Your task to perform on an android device: snooze an email in the gmail app Image 0: 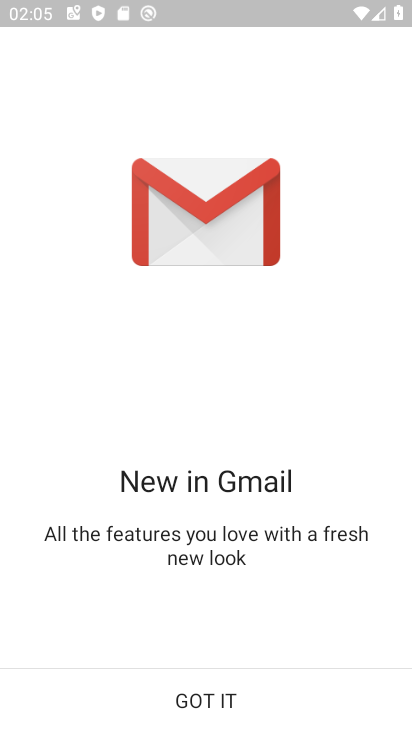
Step 0: press home button
Your task to perform on an android device: snooze an email in the gmail app Image 1: 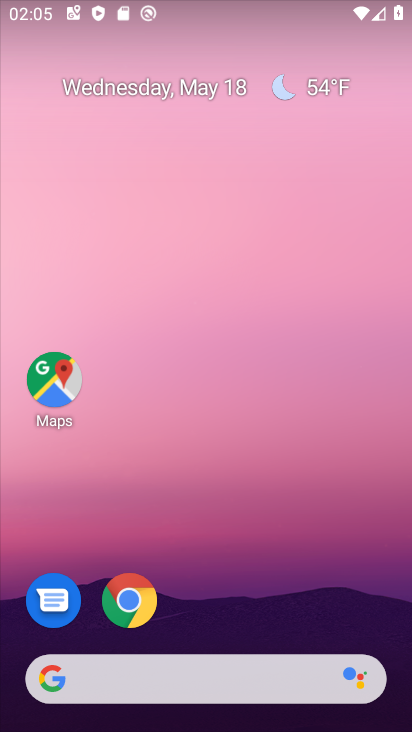
Step 1: drag from (183, 645) to (179, 228)
Your task to perform on an android device: snooze an email in the gmail app Image 2: 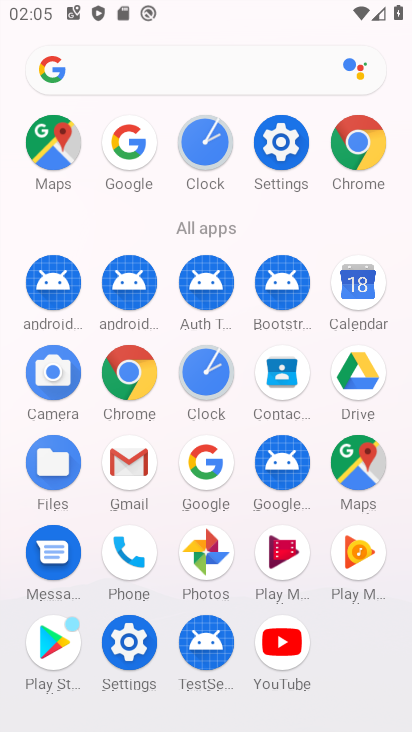
Step 2: click (129, 468)
Your task to perform on an android device: snooze an email in the gmail app Image 3: 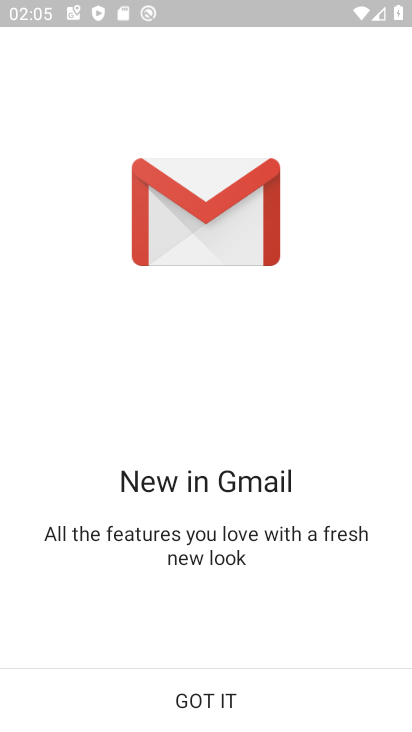
Step 3: click (196, 702)
Your task to perform on an android device: snooze an email in the gmail app Image 4: 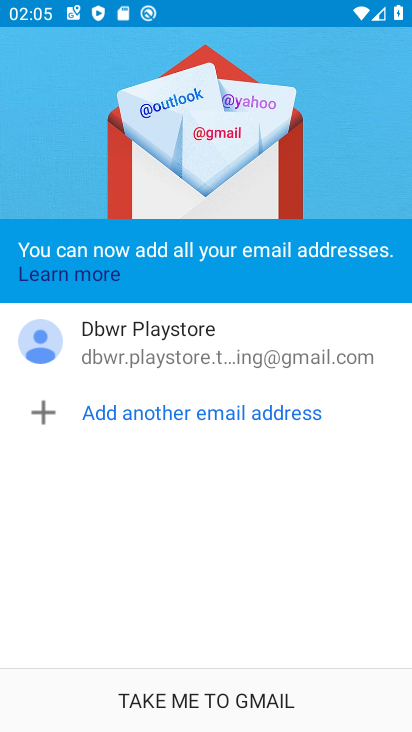
Step 4: click (208, 705)
Your task to perform on an android device: snooze an email in the gmail app Image 5: 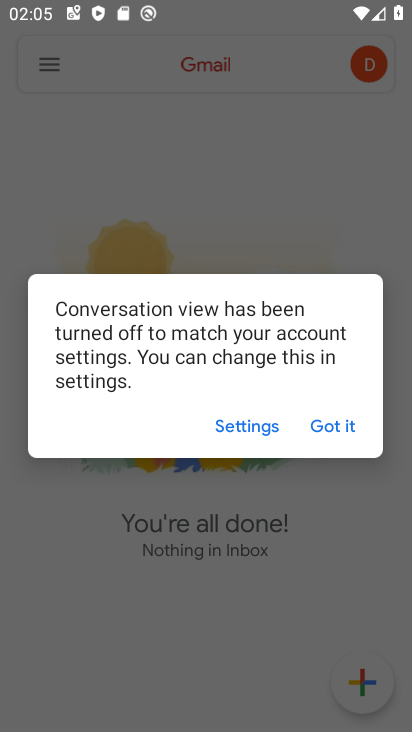
Step 5: click (342, 428)
Your task to perform on an android device: snooze an email in the gmail app Image 6: 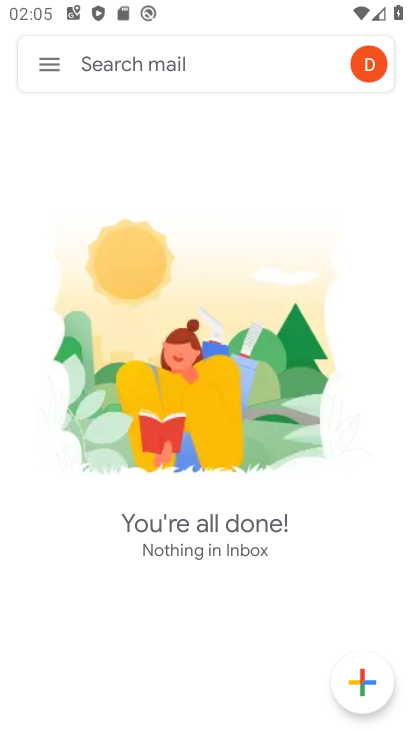
Step 6: click (49, 59)
Your task to perform on an android device: snooze an email in the gmail app Image 7: 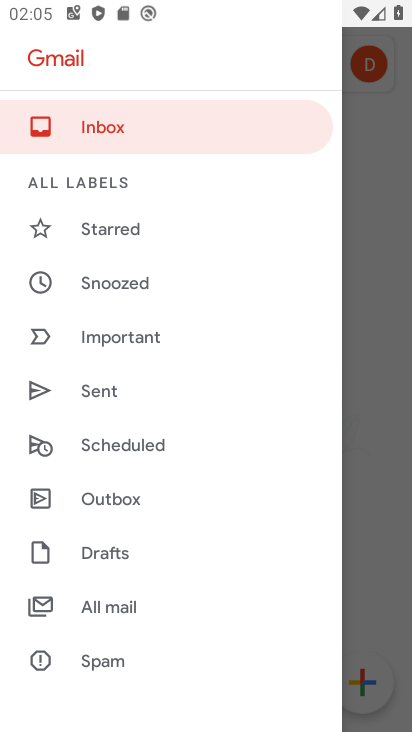
Step 7: drag from (110, 645) to (171, 167)
Your task to perform on an android device: snooze an email in the gmail app Image 8: 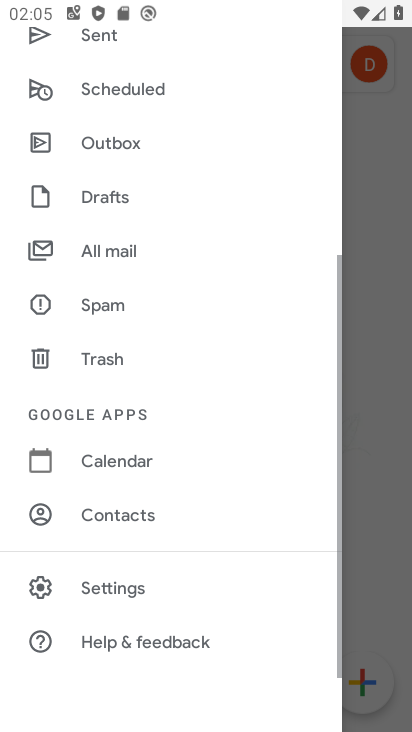
Step 8: drag from (153, 91) to (166, 491)
Your task to perform on an android device: snooze an email in the gmail app Image 9: 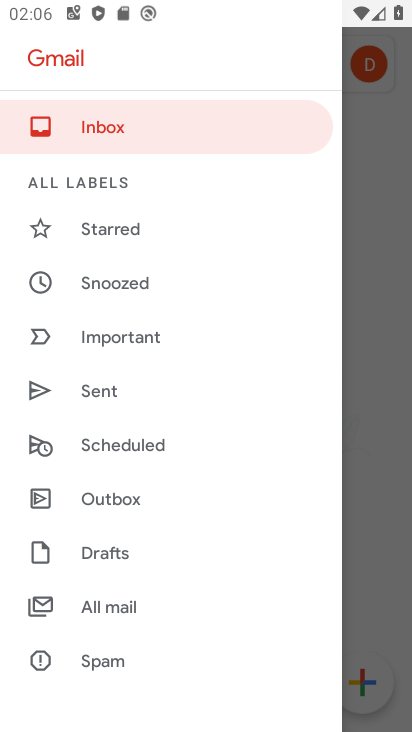
Step 9: click (117, 289)
Your task to perform on an android device: snooze an email in the gmail app Image 10: 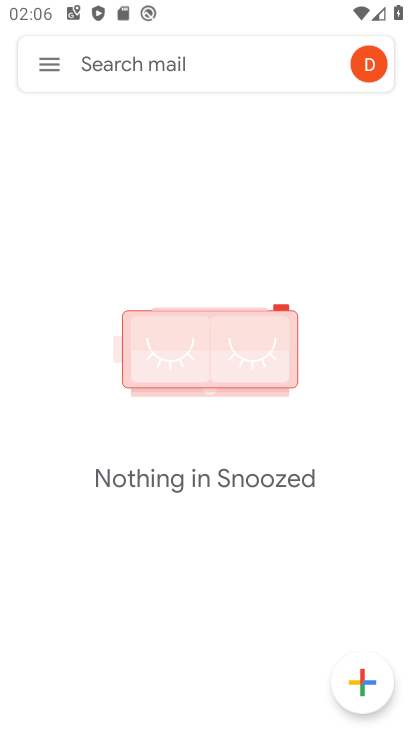
Step 10: task complete